Your task to perform on an android device: Open Google Image 0: 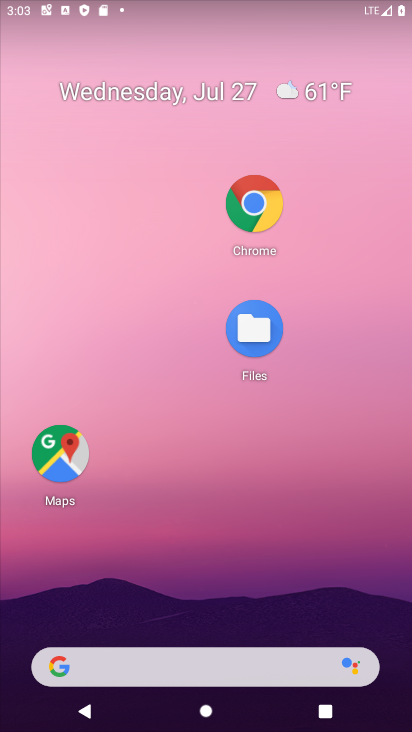
Step 0: drag from (216, 580) to (279, 147)
Your task to perform on an android device: Open Google Image 1: 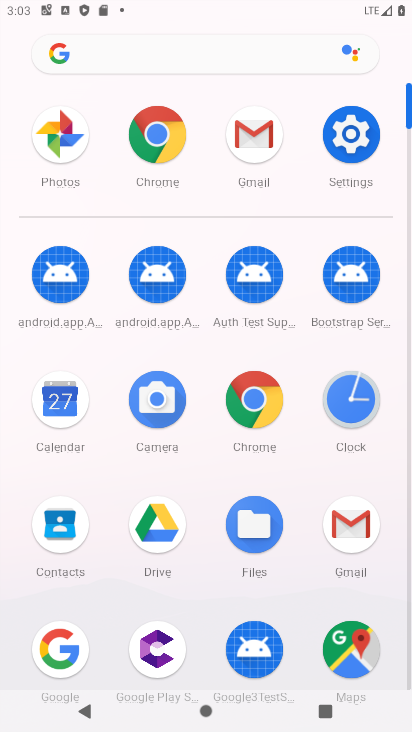
Step 1: click (43, 645)
Your task to perform on an android device: Open Google Image 2: 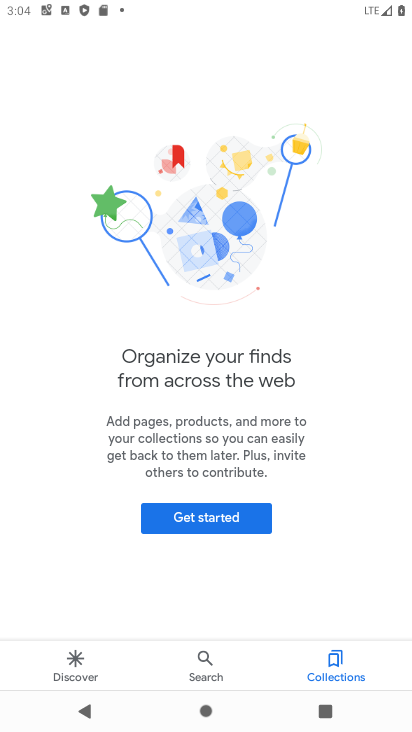
Step 2: press home button
Your task to perform on an android device: Open Google Image 3: 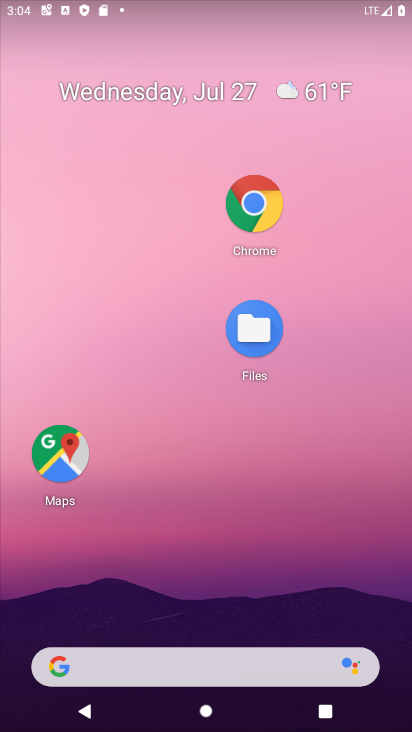
Step 3: drag from (198, 563) to (213, 133)
Your task to perform on an android device: Open Google Image 4: 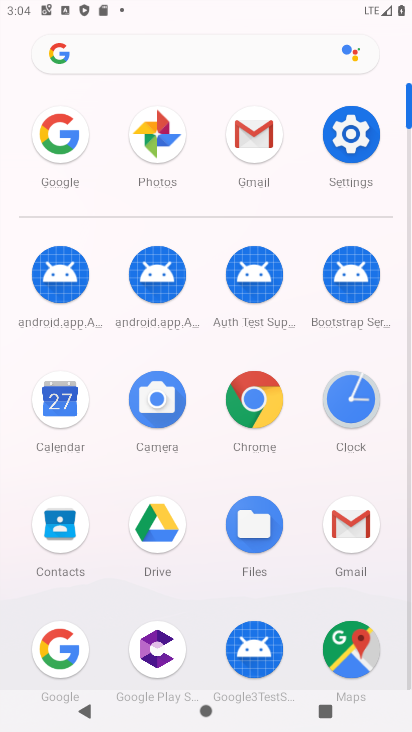
Step 4: click (49, 665)
Your task to perform on an android device: Open Google Image 5: 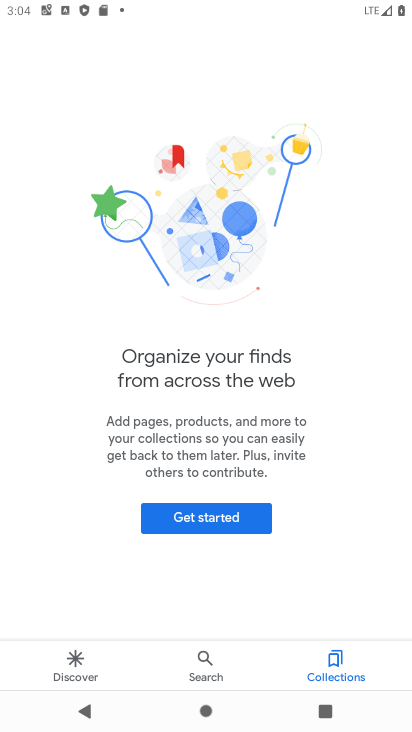
Step 5: task complete